Your task to perform on an android device: set the timer Image 0: 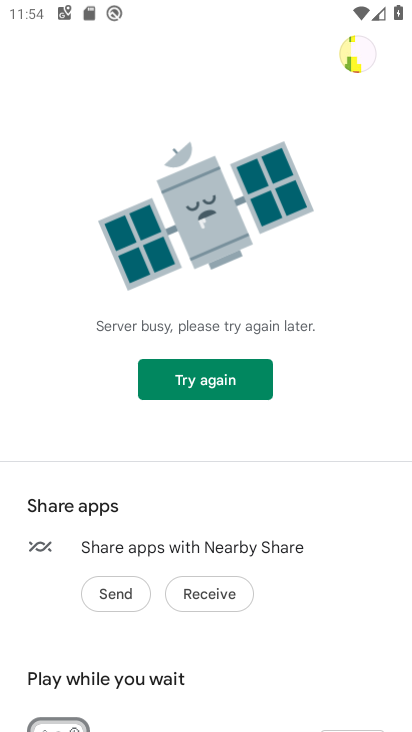
Step 0: press home button
Your task to perform on an android device: set the timer Image 1: 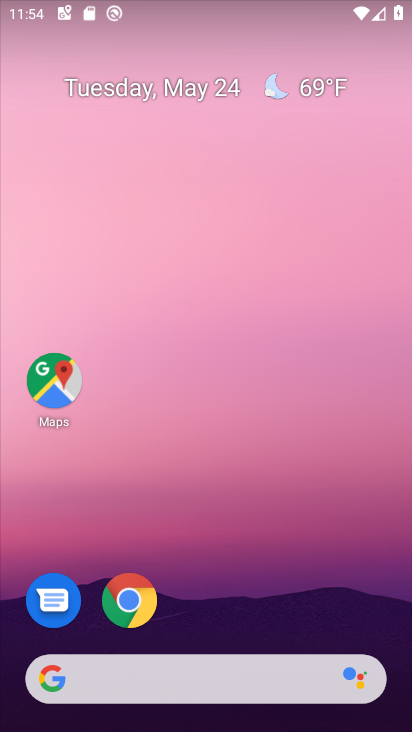
Step 1: drag from (388, 604) to (348, 226)
Your task to perform on an android device: set the timer Image 2: 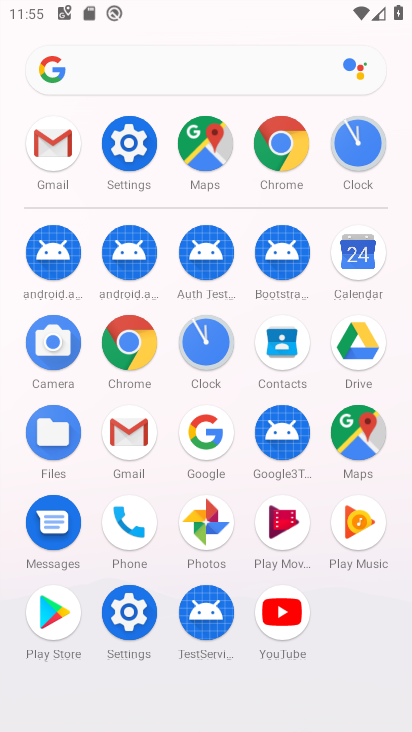
Step 2: click (207, 352)
Your task to perform on an android device: set the timer Image 3: 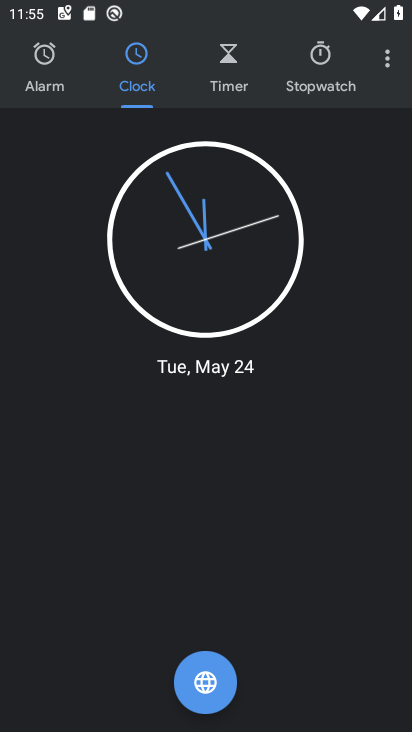
Step 3: click (229, 83)
Your task to perform on an android device: set the timer Image 4: 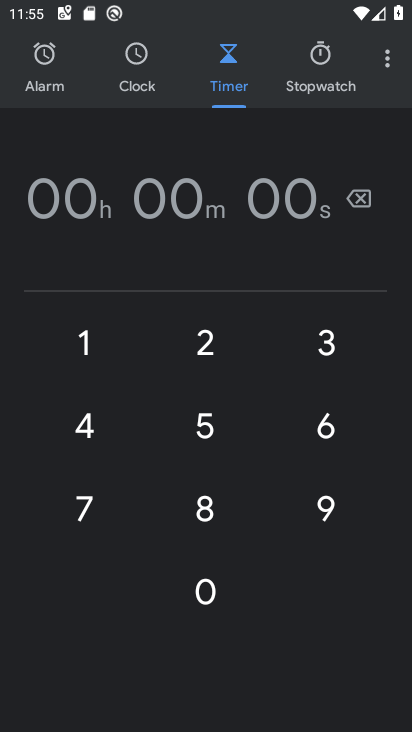
Step 4: click (209, 433)
Your task to perform on an android device: set the timer Image 5: 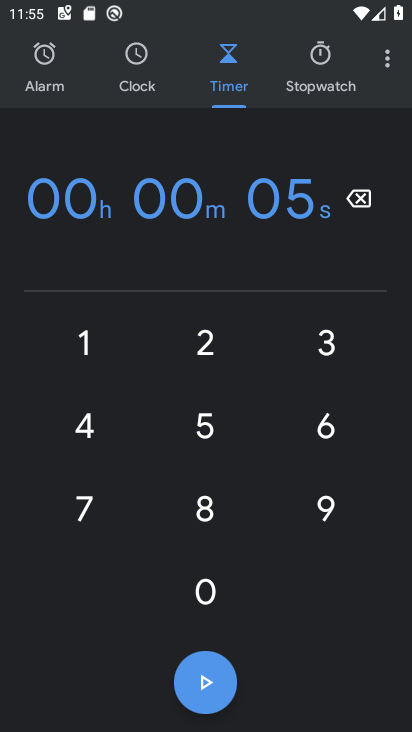
Step 5: task complete